Your task to perform on an android device: delete the emails in spam in the gmail app Image 0: 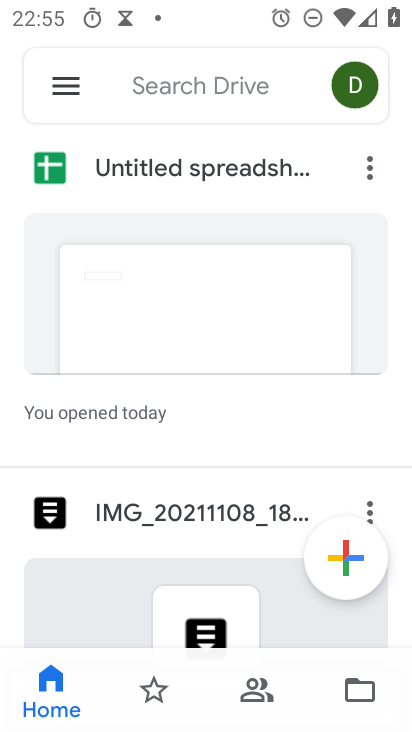
Step 0: press home button
Your task to perform on an android device: delete the emails in spam in the gmail app Image 1: 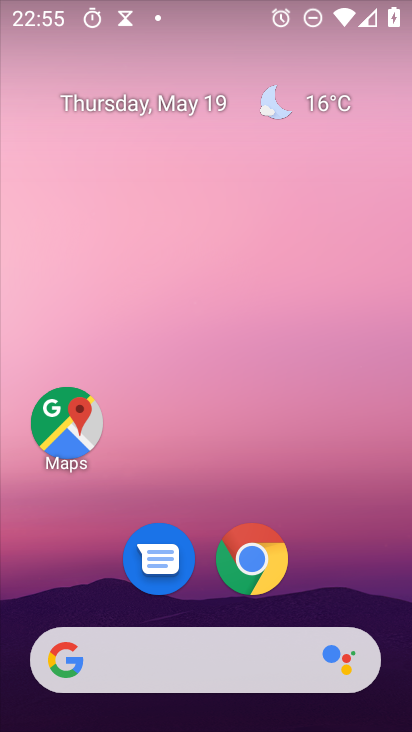
Step 1: drag from (239, 727) to (237, 216)
Your task to perform on an android device: delete the emails in spam in the gmail app Image 2: 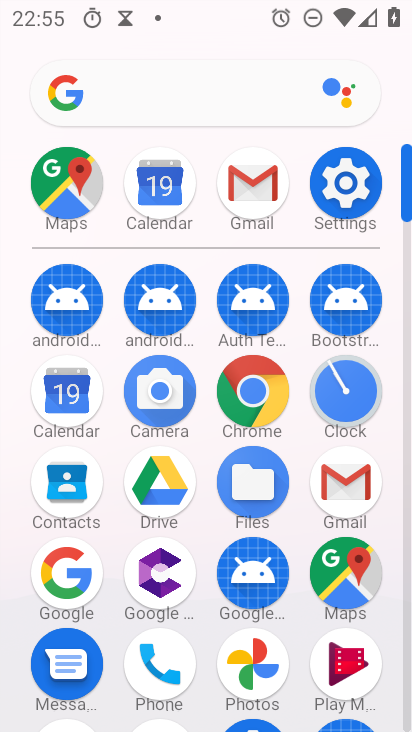
Step 2: click (336, 487)
Your task to perform on an android device: delete the emails in spam in the gmail app Image 3: 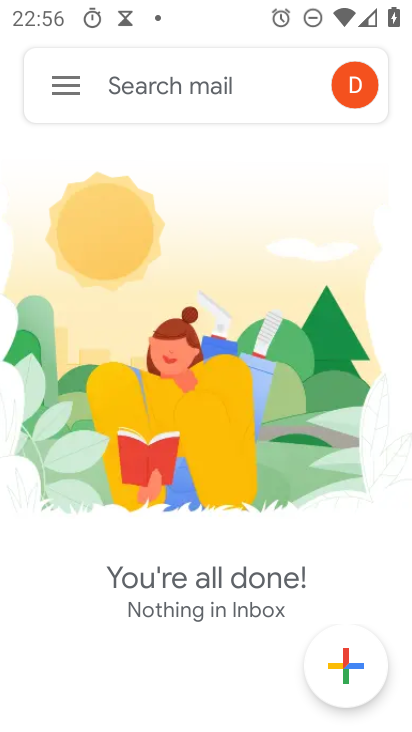
Step 3: task complete